Your task to perform on an android device: open device folders in google photos Image 0: 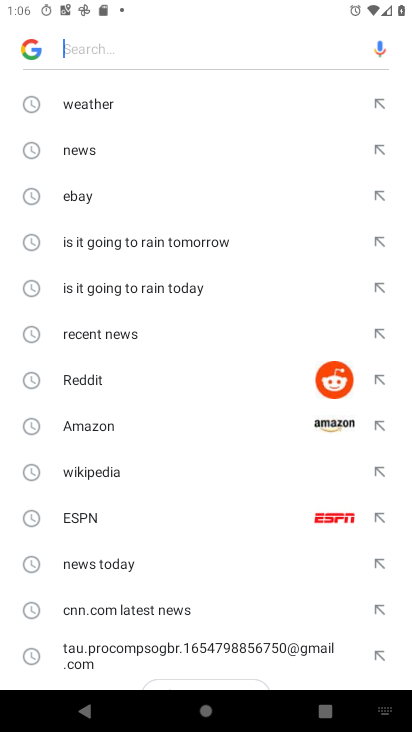
Step 0: press home button
Your task to perform on an android device: open device folders in google photos Image 1: 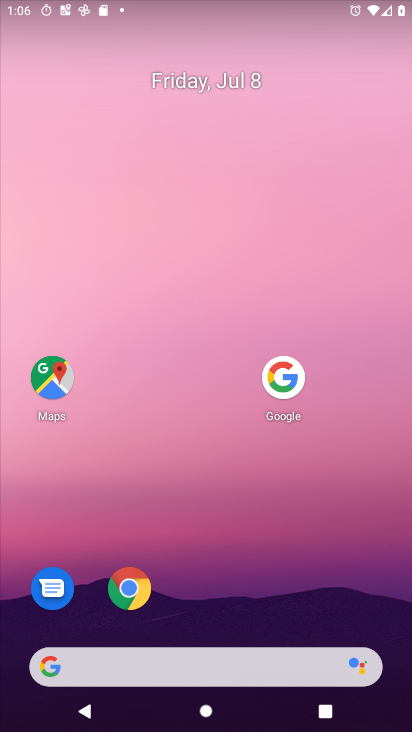
Step 1: drag from (159, 661) to (334, 5)
Your task to perform on an android device: open device folders in google photos Image 2: 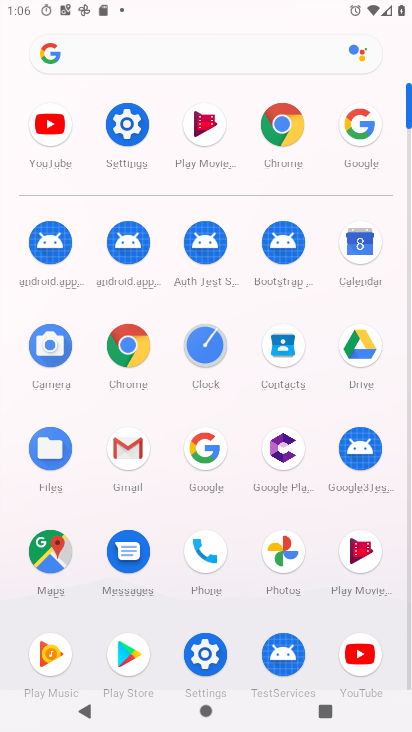
Step 2: click (281, 546)
Your task to perform on an android device: open device folders in google photos Image 3: 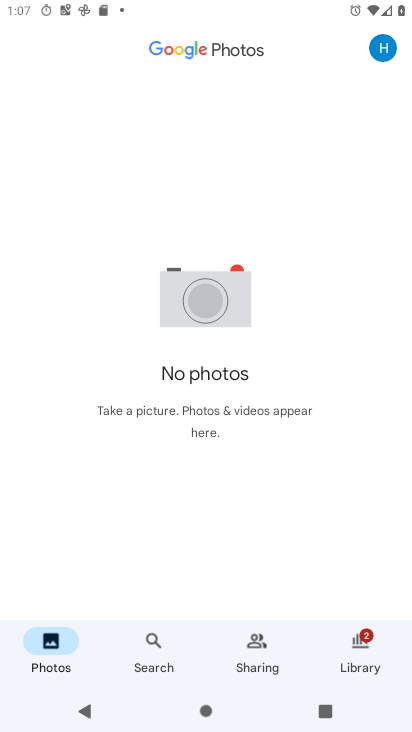
Step 3: click (362, 661)
Your task to perform on an android device: open device folders in google photos Image 4: 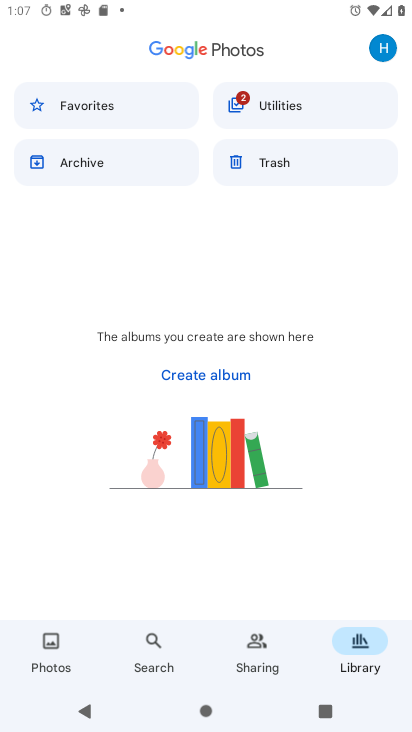
Step 4: task complete